Your task to perform on an android device: Go to Reddit.com Image 0: 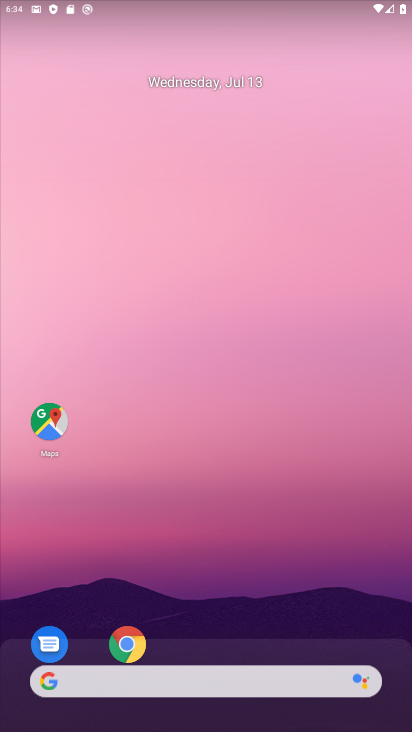
Step 0: click (174, 692)
Your task to perform on an android device: Go to Reddit.com Image 1: 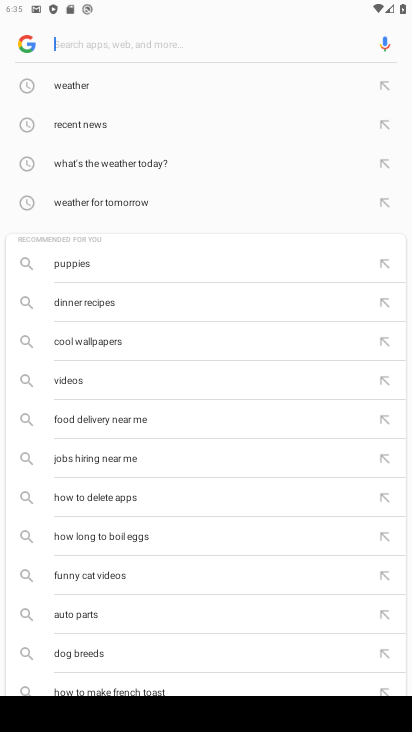
Step 1: type "reddit.com"
Your task to perform on an android device: Go to Reddit.com Image 2: 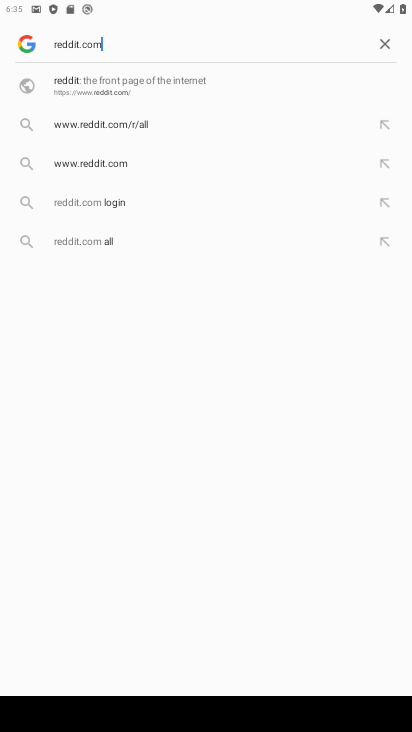
Step 2: click (86, 80)
Your task to perform on an android device: Go to Reddit.com Image 3: 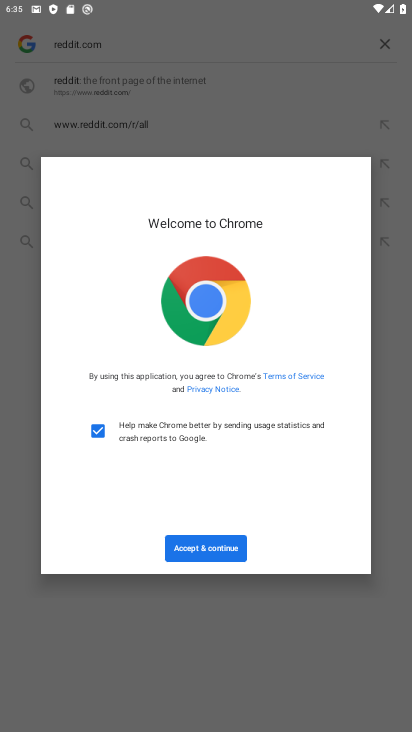
Step 3: click (193, 550)
Your task to perform on an android device: Go to Reddit.com Image 4: 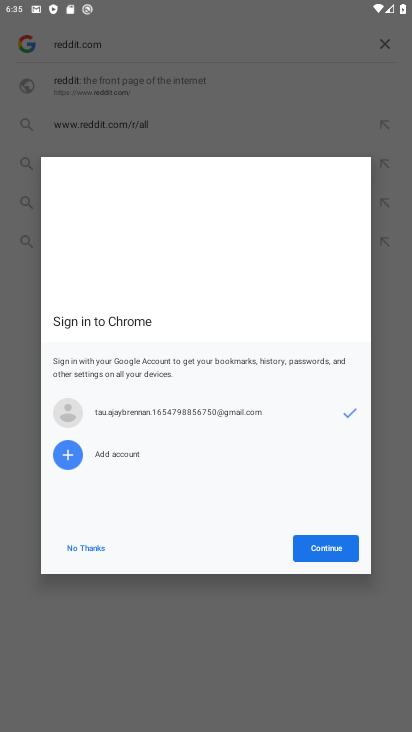
Step 4: click (324, 554)
Your task to perform on an android device: Go to Reddit.com Image 5: 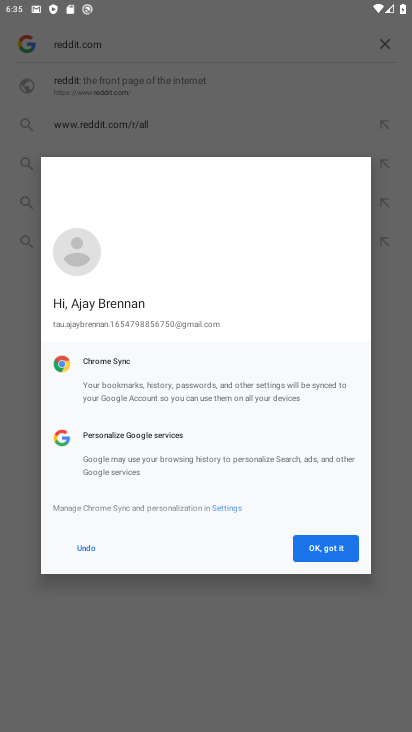
Step 5: click (323, 551)
Your task to perform on an android device: Go to Reddit.com Image 6: 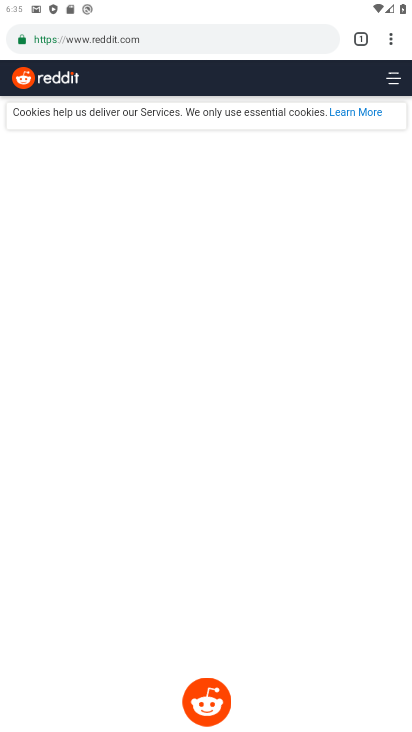
Step 6: task complete